Your task to perform on an android device: Search for vegetarian restaurants on Maps Image 0: 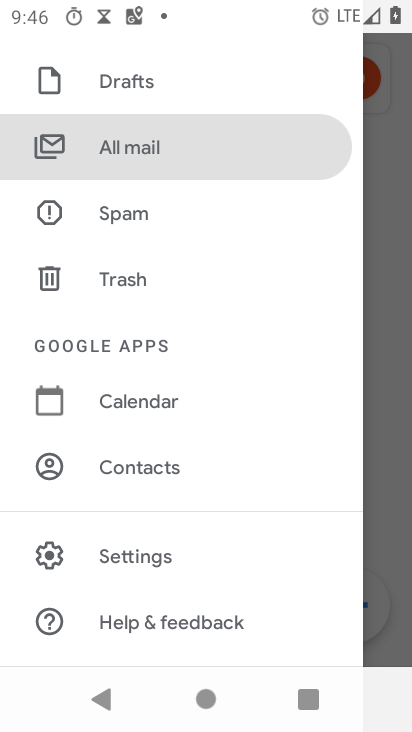
Step 0: press home button
Your task to perform on an android device: Search for vegetarian restaurants on Maps Image 1: 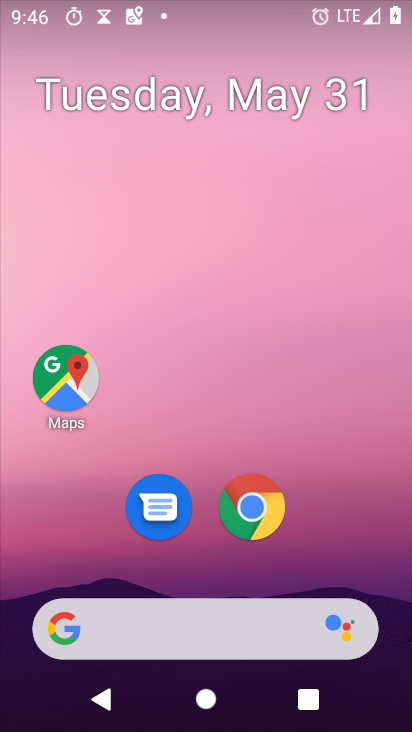
Step 1: click (46, 376)
Your task to perform on an android device: Search for vegetarian restaurants on Maps Image 2: 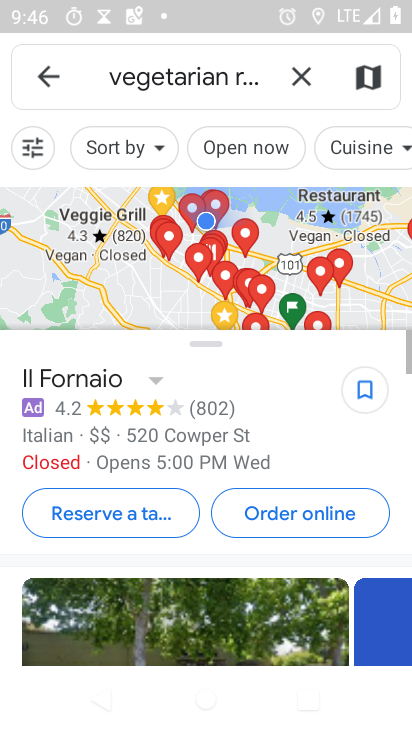
Step 2: task complete